Your task to perform on an android device: check android version Image 0: 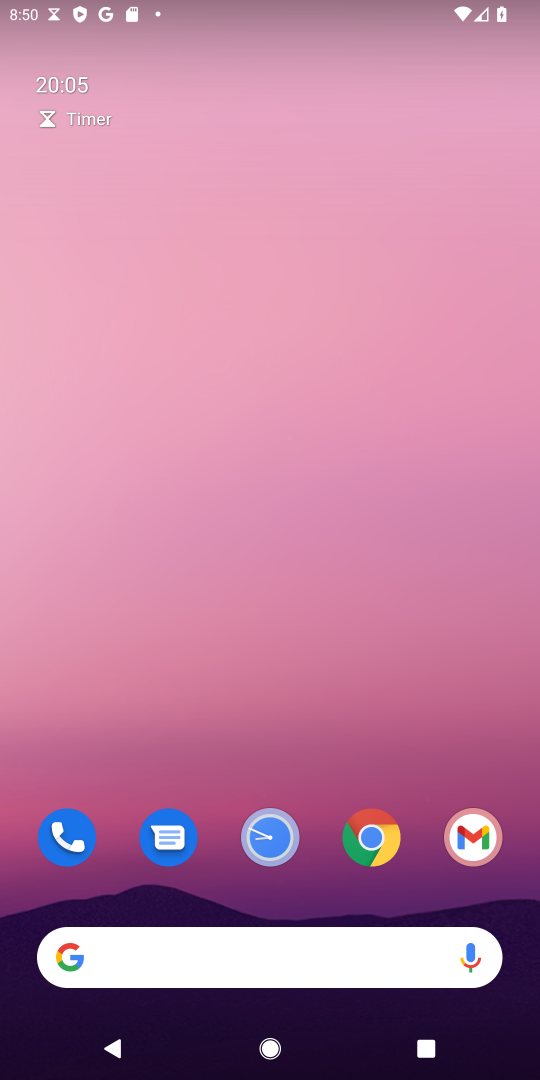
Step 0: drag from (312, 914) to (330, 14)
Your task to perform on an android device: check android version Image 1: 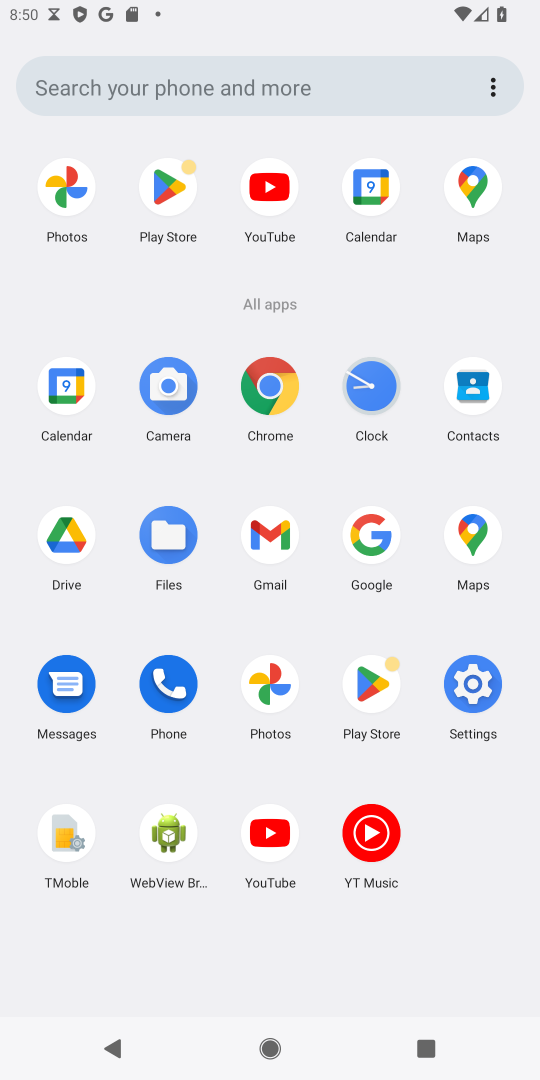
Step 1: click (469, 681)
Your task to perform on an android device: check android version Image 2: 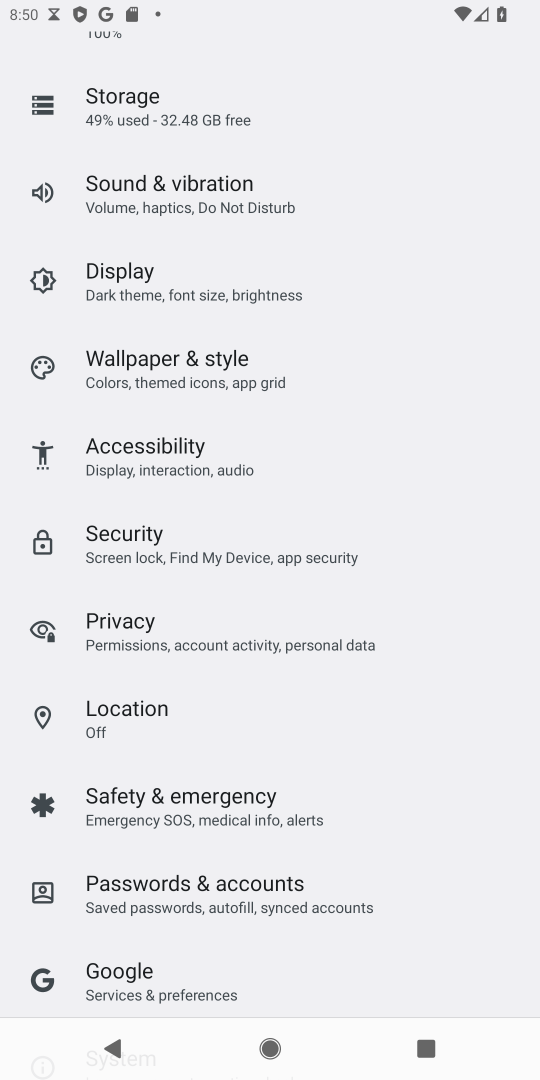
Step 2: drag from (193, 933) to (206, 465)
Your task to perform on an android device: check android version Image 3: 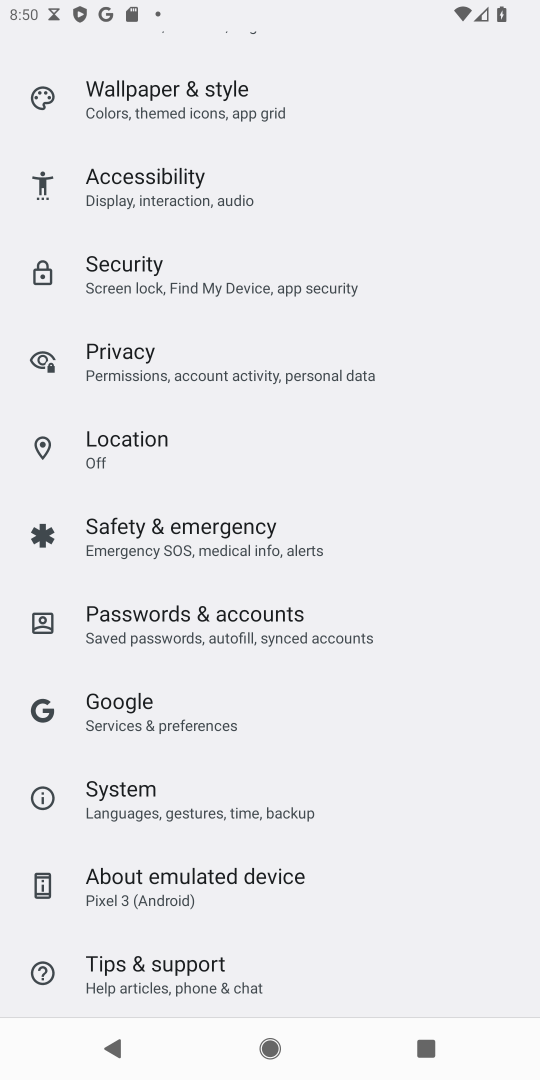
Step 3: drag from (205, 959) to (210, 571)
Your task to perform on an android device: check android version Image 4: 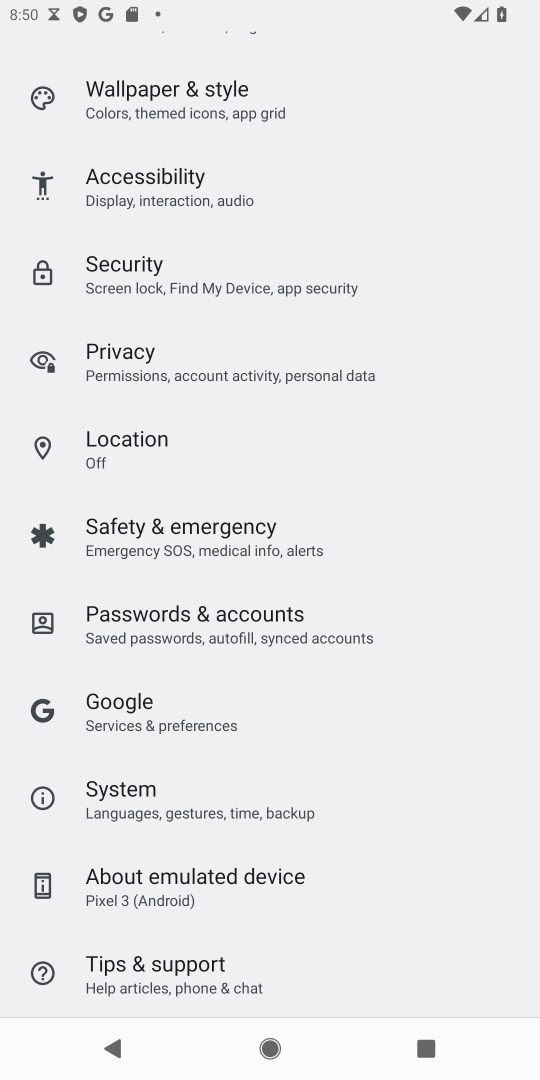
Step 4: drag from (229, 937) to (229, 546)
Your task to perform on an android device: check android version Image 5: 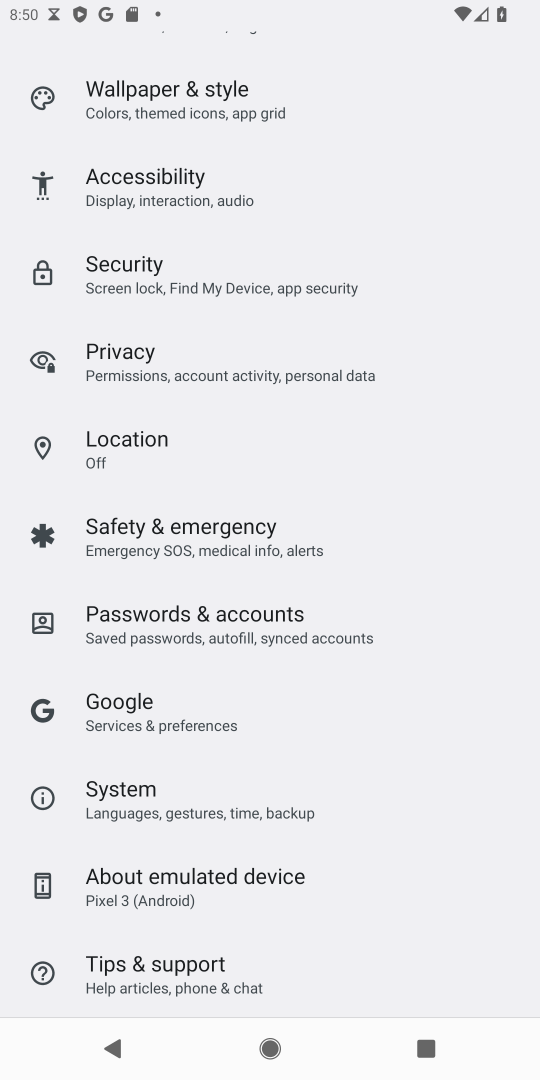
Step 5: click (176, 875)
Your task to perform on an android device: check android version Image 6: 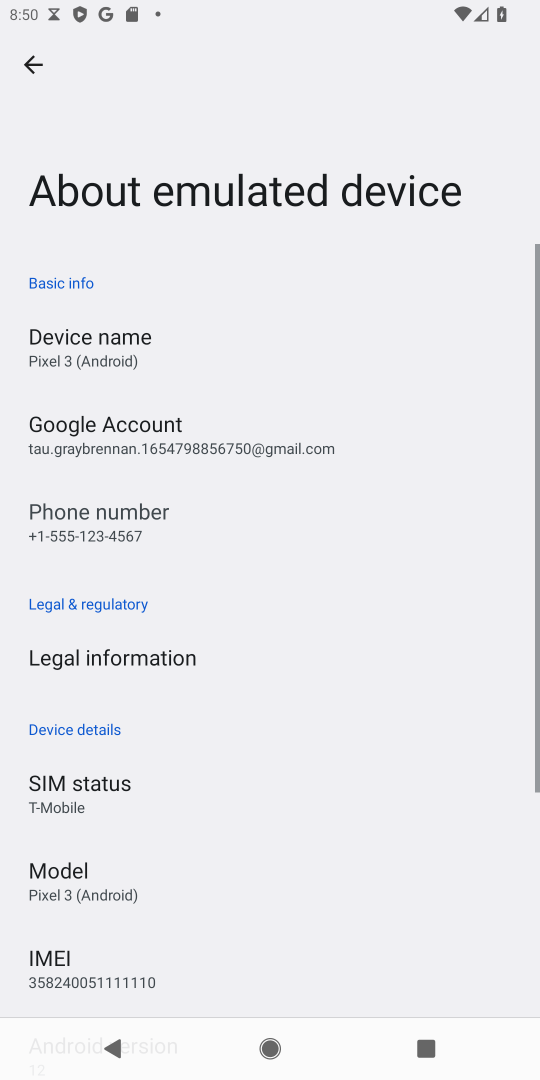
Step 6: drag from (125, 905) to (143, 483)
Your task to perform on an android device: check android version Image 7: 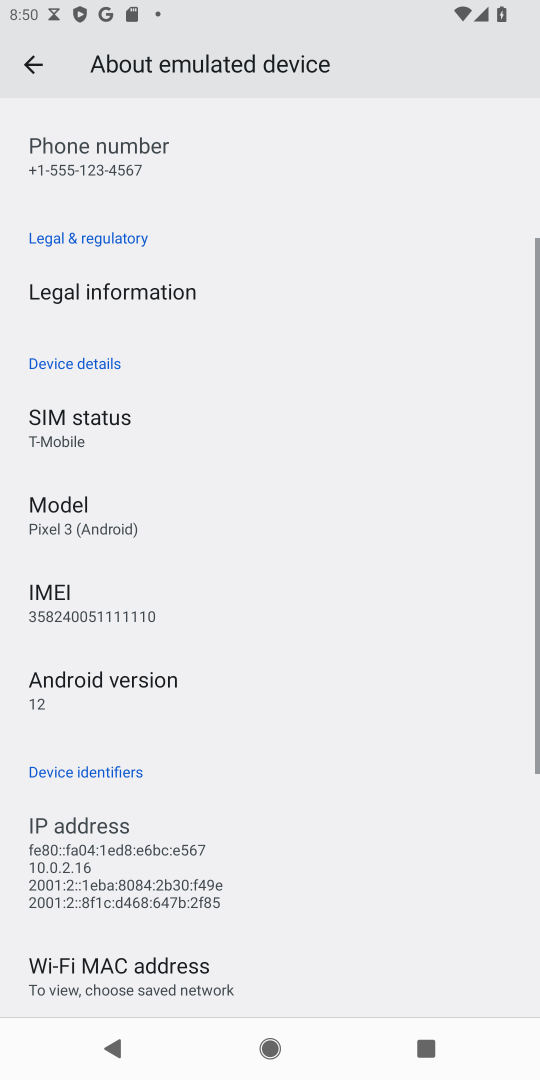
Step 7: click (98, 679)
Your task to perform on an android device: check android version Image 8: 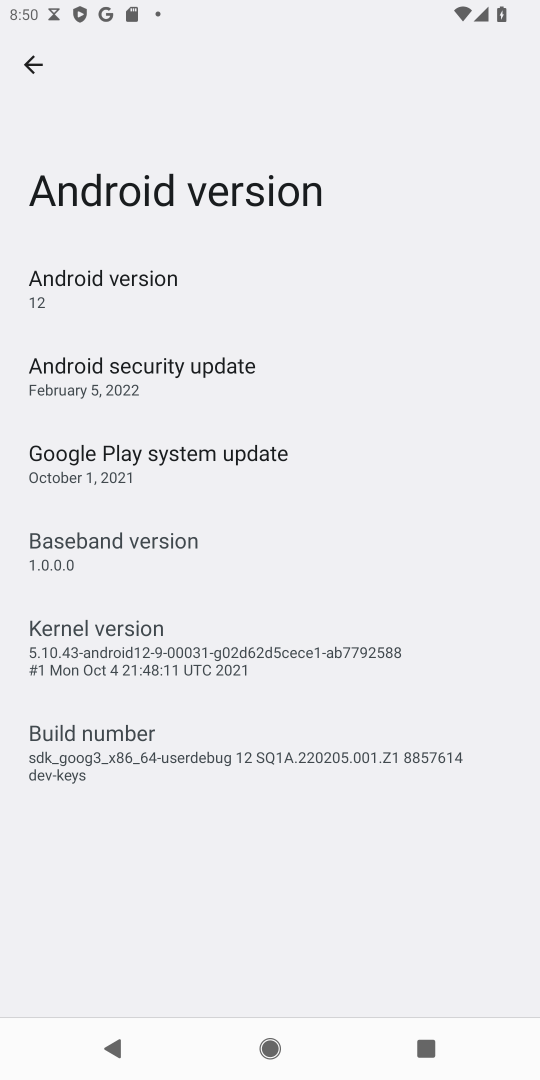
Step 8: task complete